Your task to perform on an android device: Open Amazon Image 0: 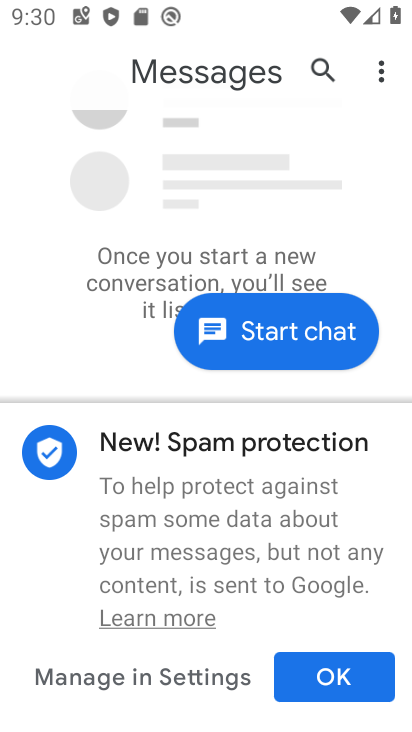
Step 0: press home button
Your task to perform on an android device: Open Amazon Image 1: 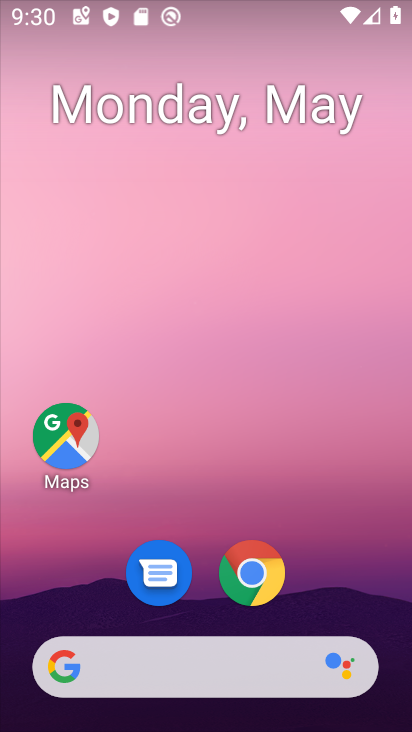
Step 1: click (271, 580)
Your task to perform on an android device: Open Amazon Image 2: 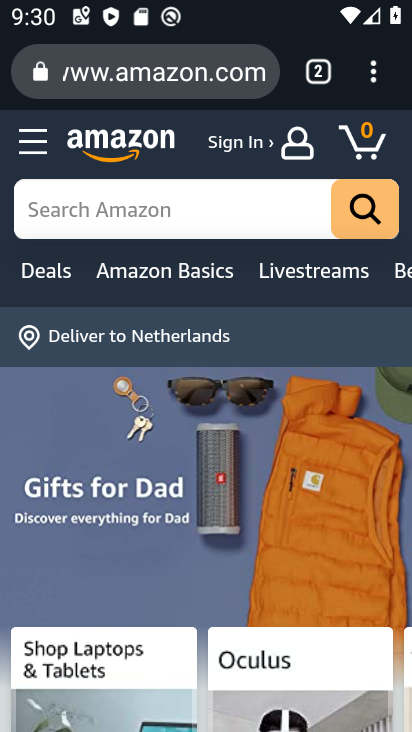
Step 2: task complete